Your task to perform on an android device: Do I have any events tomorrow? Image 0: 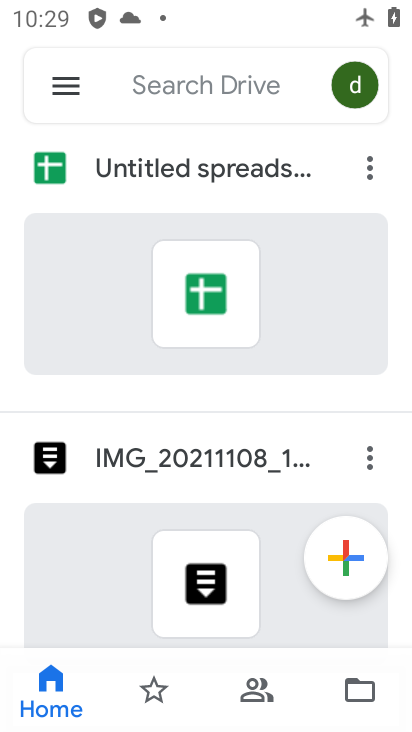
Step 0: press home button
Your task to perform on an android device: Do I have any events tomorrow? Image 1: 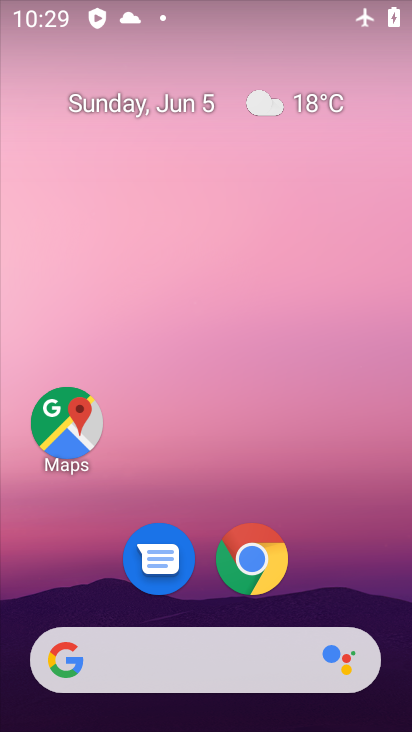
Step 1: drag from (385, 703) to (338, 158)
Your task to perform on an android device: Do I have any events tomorrow? Image 2: 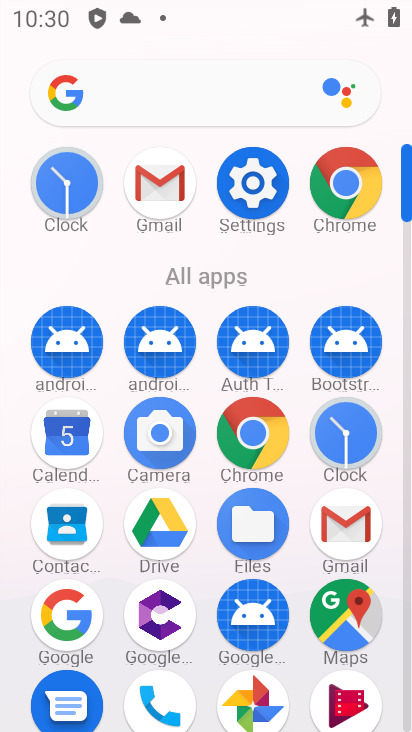
Step 2: click (69, 436)
Your task to perform on an android device: Do I have any events tomorrow? Image 3: 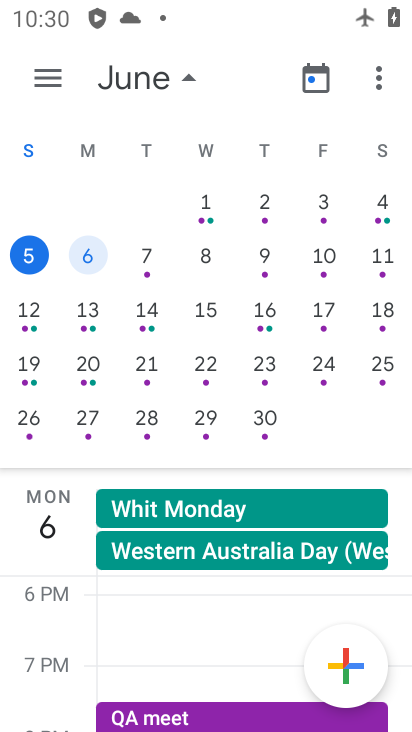
Step 3: click (81, 251)
Your task to perform on an android device: Do I have any events tomorrow? Image 4: 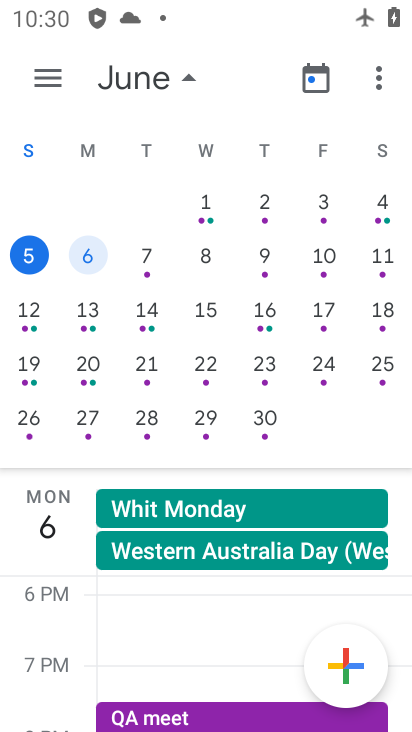
Step 4: task complete